Your task to perform on an android device: turn on bluetooth scan Image 0: 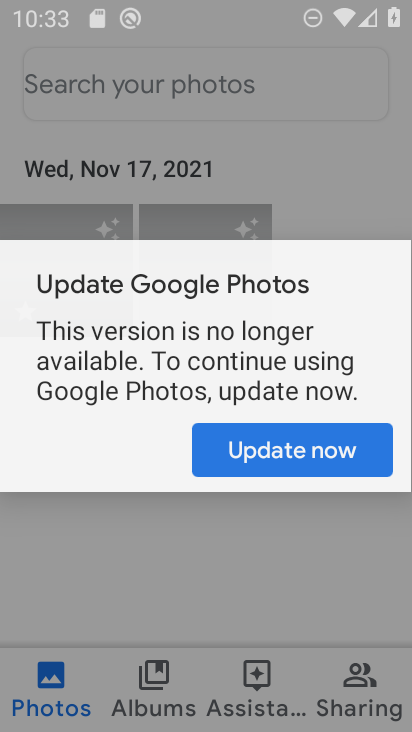
Step 0: press home button
Your task to perform on an android device: turn on bluetooth scan Image 1: 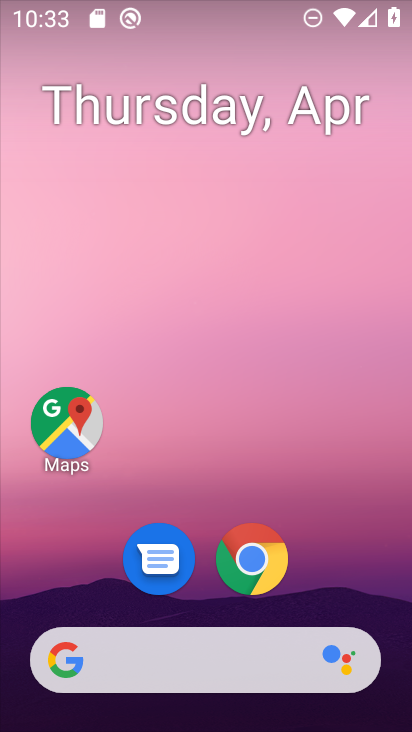
Step 1: drag from (246, 662) to (245, 147)
Your task to perform on an android device: turn on bluetooth scan Image 2: 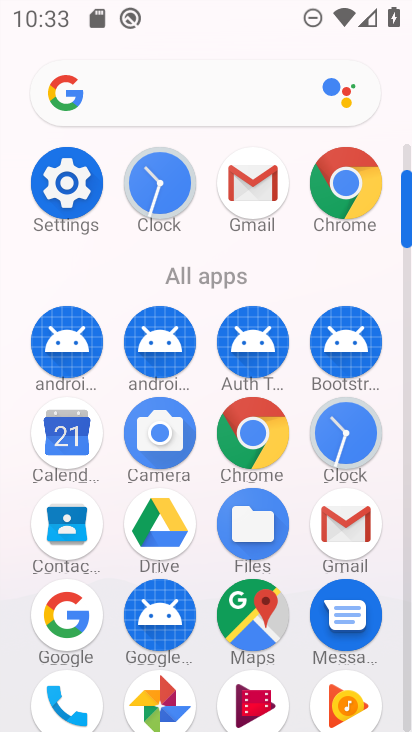
Step 2: click (84, 187)
Your task to perform on an android device: turn on bluetooth scan Image 3: 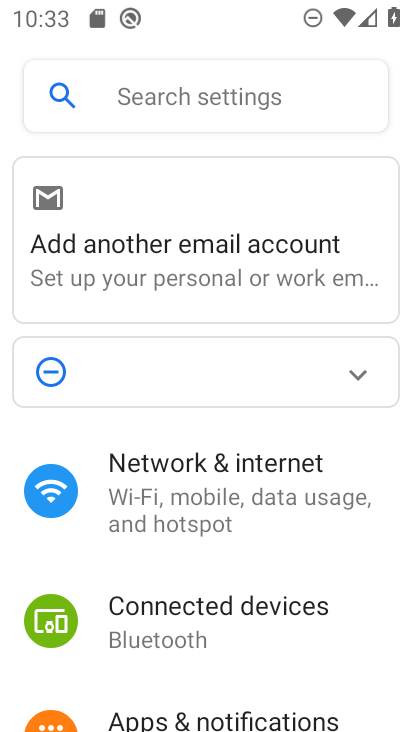
Step 3: click (183, 97)
Your task to perform on an android device: turn on bluetooth scan Image 4: 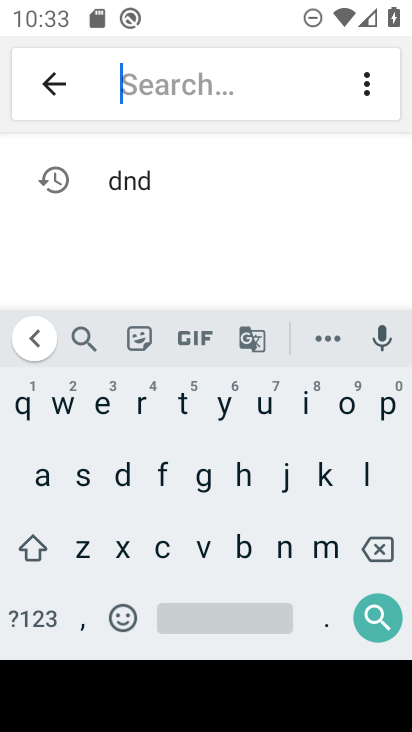
Step 4: click (369, 470)
Your task to perform on an android device: turn on bluetooth scan Image 5: 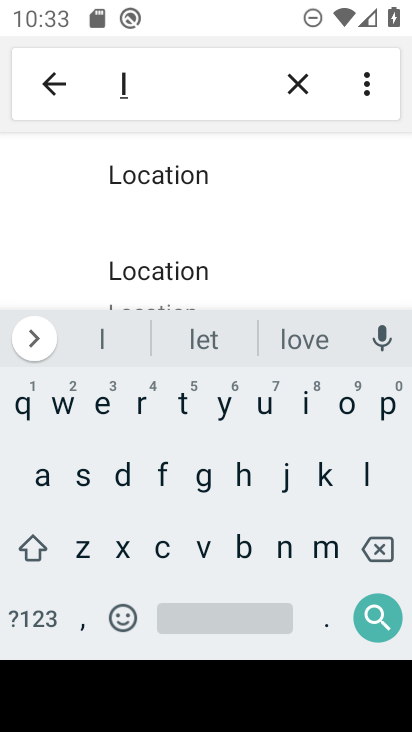
Step 5: click (204, 293)
Your task to perform on an android device: turn on bluetooth scan Image 6: 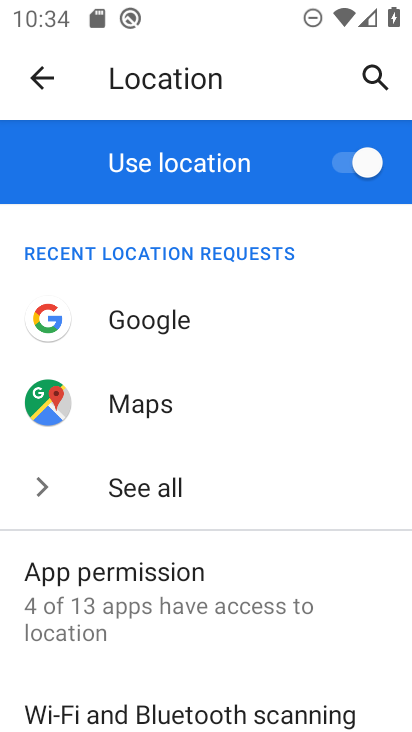
Step 6: drag from (154, 599) to (154, 277)
Your task to perform on an android device: turn on bluetooth scan Image 7: 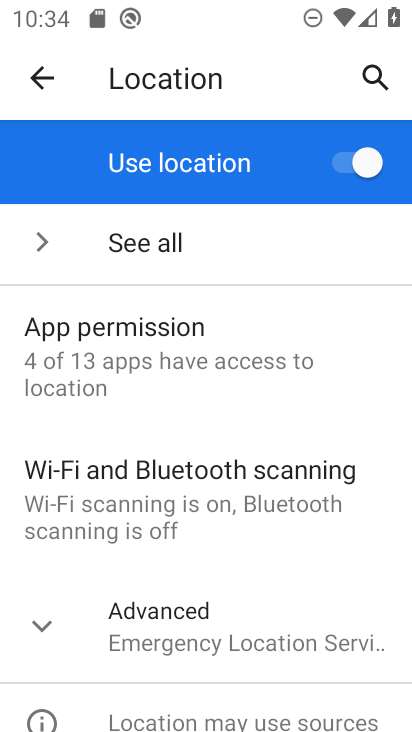
Step 7: click (190, 479)
Your task to perform on an android device: turn on bluetooth scan Image 8: 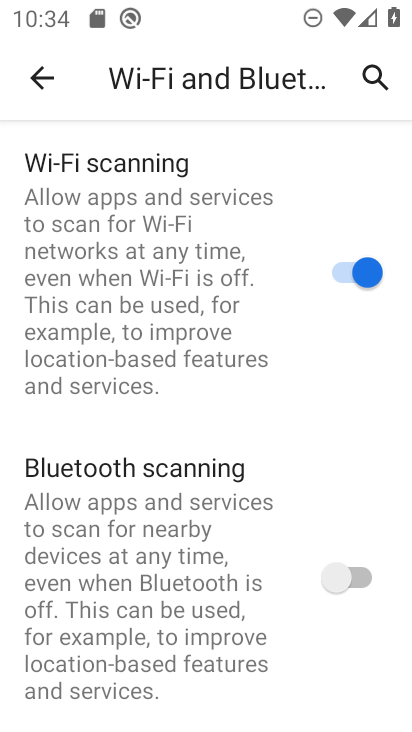
Step 8: click (365, 573)
Your task to perform on an android device: turn on bluetooth scan Image 9: 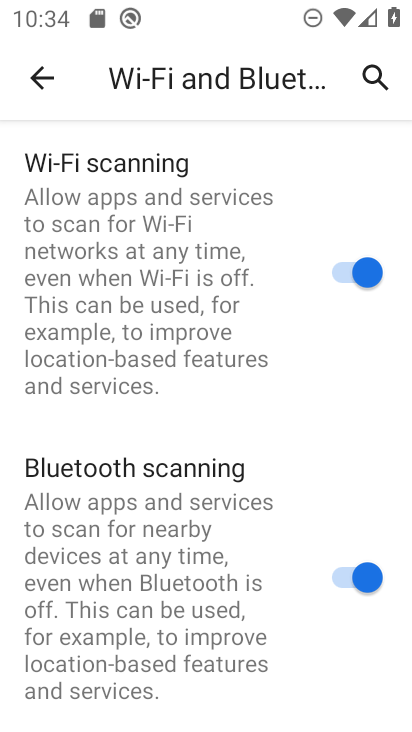
Step 9: task complete